Your task to perform on an android device: turn pop-ups off in chrome Image 0: 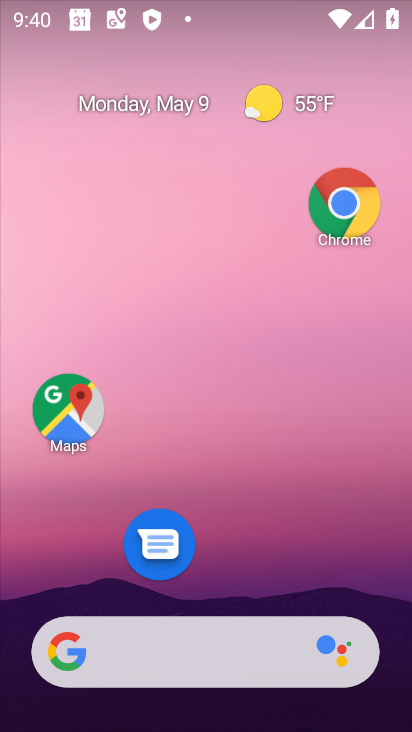
Step 0: click (330, 216)
Your task to perform on an android device: turn pop-ups off in chrome Image 1: 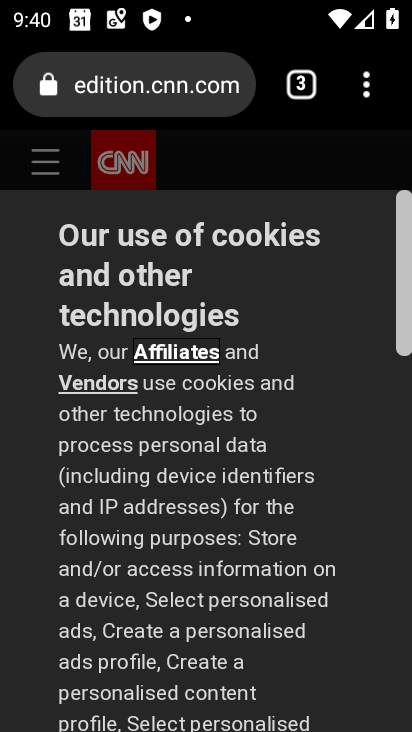
Step 1: drag from (365, 84) to (96, 591)
Your task to perform on an android device: turn pop-ups off in chrome Image 2: 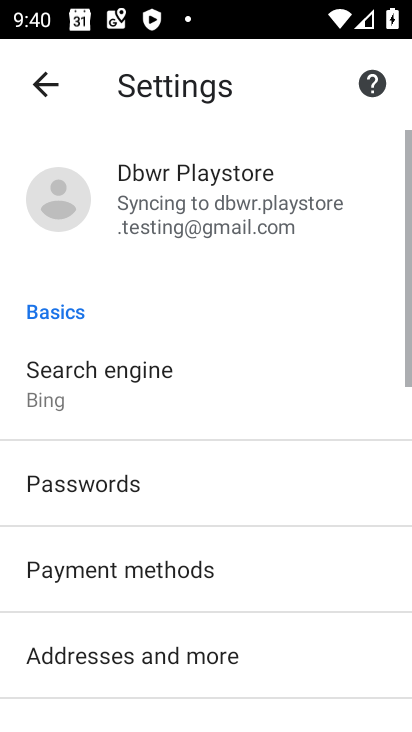
Step 2: drag from (166, 639) to (211, 298)
Your task to perform on an android device: turn pop-ups off in chrome Image 3: 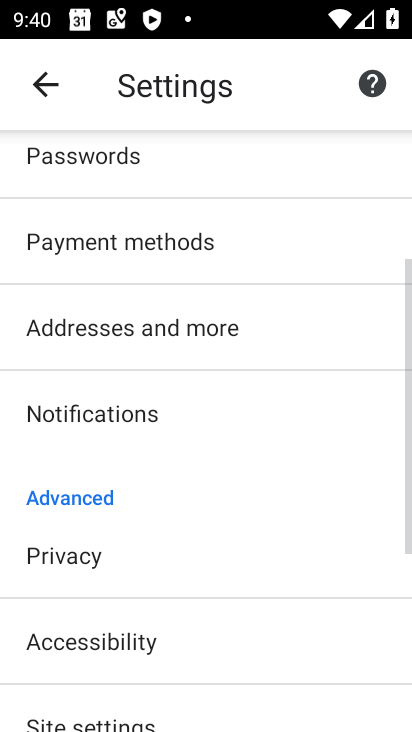
Step 3: drag from (184, 607) to (230, 316)
Your task to perform on an android device: turn pop-ups off in chrome Image 4: 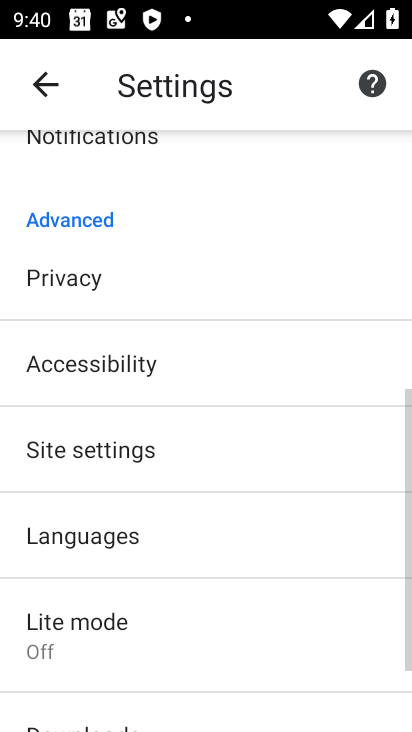
Step 4: click (137, 456)
Your task to perform on an android device: turn pop-ups off in chrome Image 5: 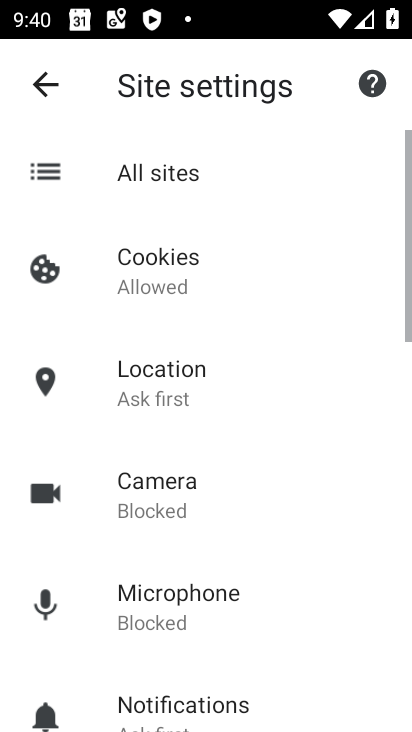
Step 5: drag from (175, 629) to (234, 278)
Your task to perform on an android device: turn pop-ups off in chrome Image 6: 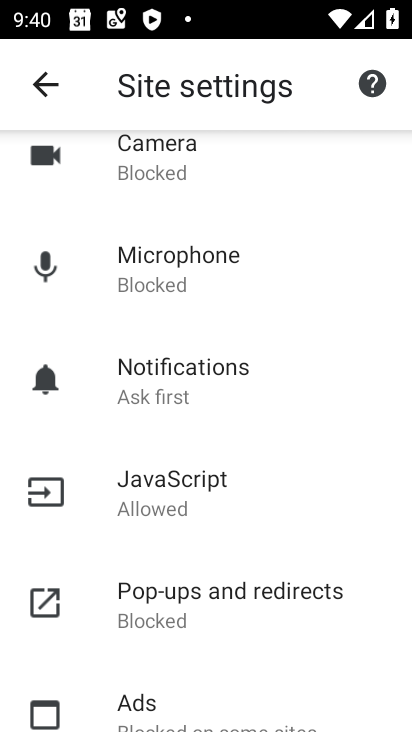
Step 6: click (185, 627)
Your task to perform on an android device: turn pop-ups off in chrome Image 7: 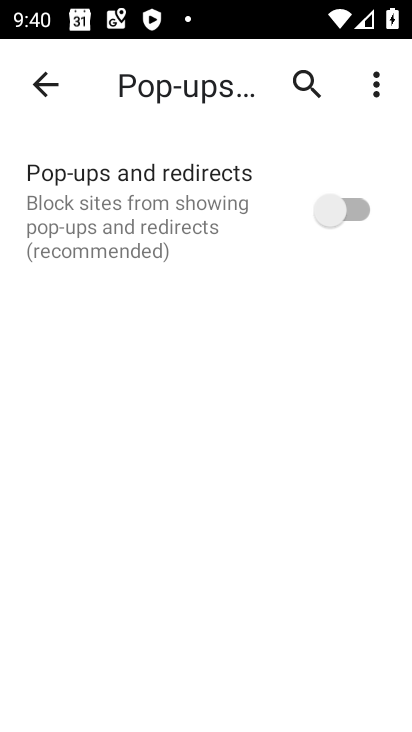
Step 7: task complete